Your task to perform on an android device: Go to sound settings Image 0: 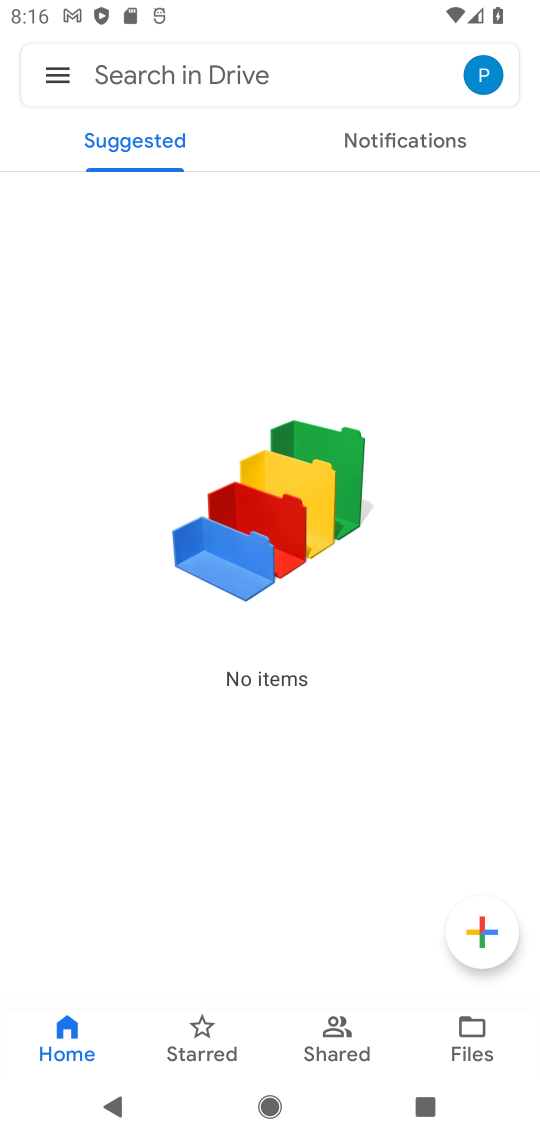
Step 0: press home button
Your task to perform on an android device: Go to sound settings Image 1: 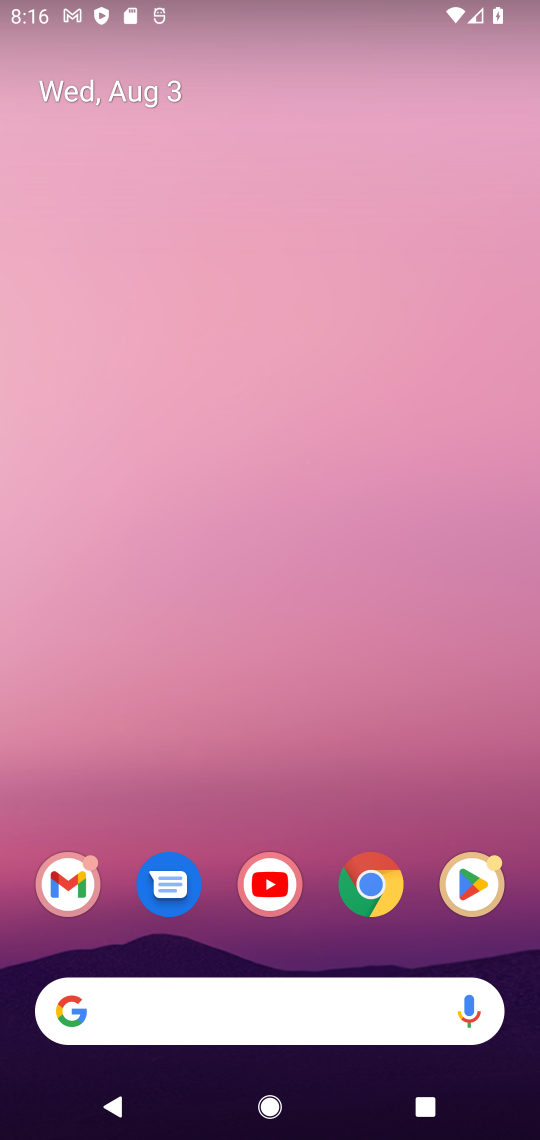
Step 1: drag from (67, 1093) to (417, 285)
Your task to perform on an android device: Go to sound settings Image 2: 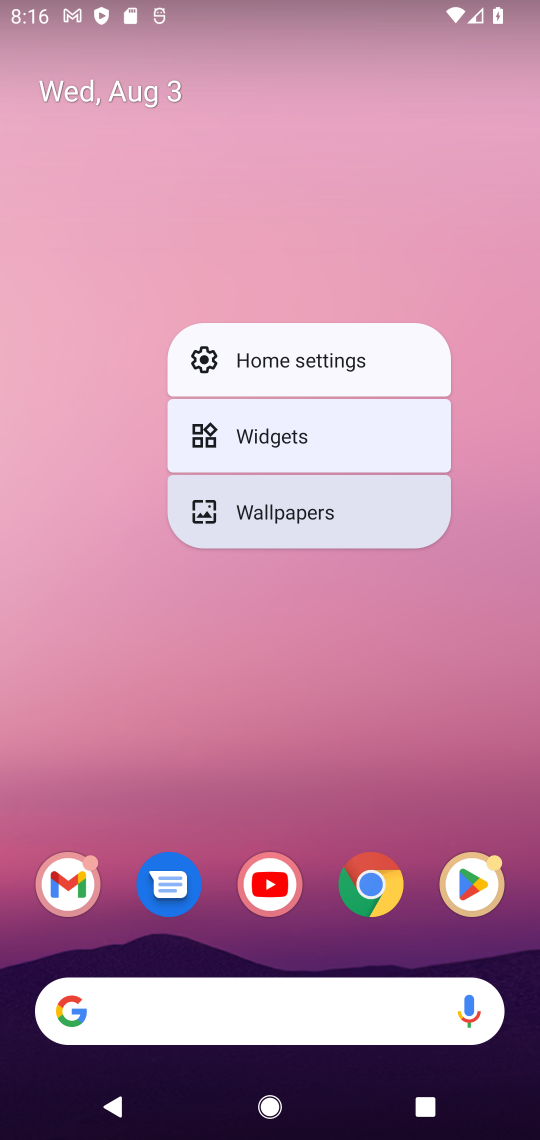
Step 2: drag from (66, 1056) to (337, 0)
Your task to perform on an android device: Go to sound settings Image 3: 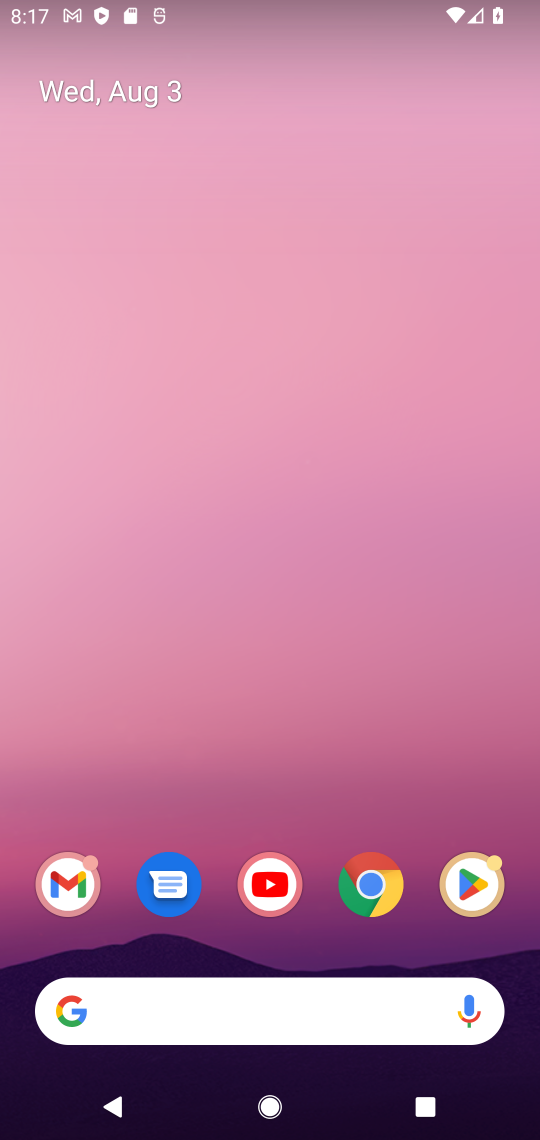
Step 3: drag from (48, 1038) to (313, 94)
Your task to perform on an android device: Go to sound settings Image 4: 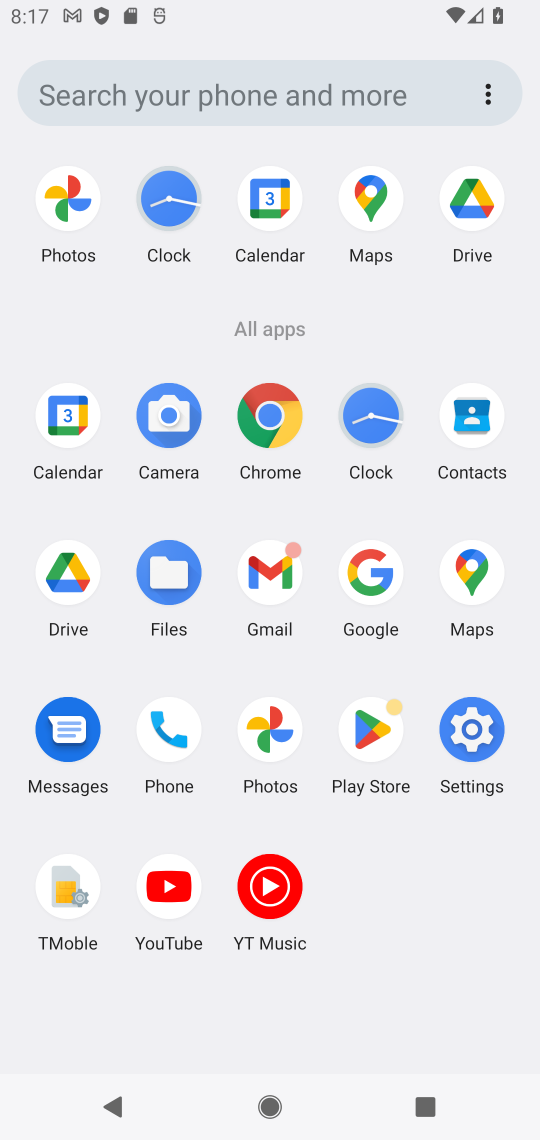
Step 4: click (463, 725)
Your task to perform on an android device: Go to sound settings Image 5: 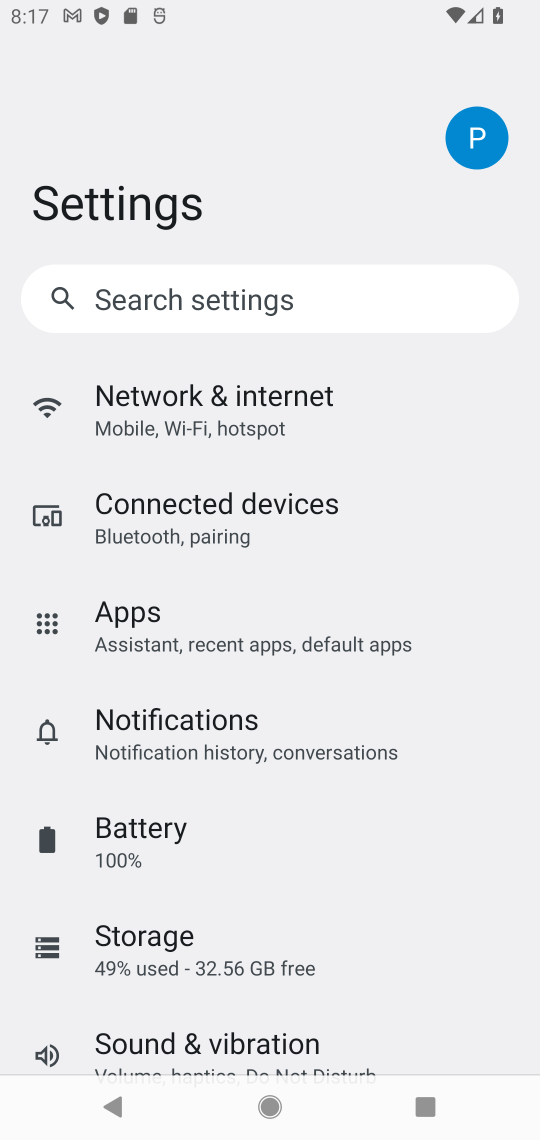
Step 5: click (282, 1039)
Your task to perform on an android device: Go to sound settings Image 6: 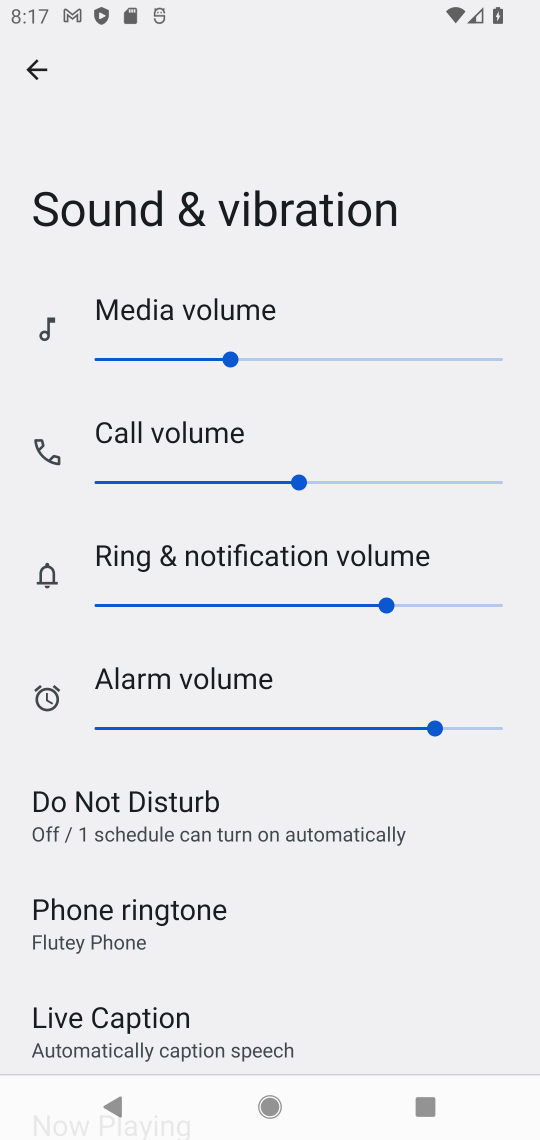
Step 6: task complete